Your task to perform on an android device: What's the latest video from GameSpot News? Image 0: 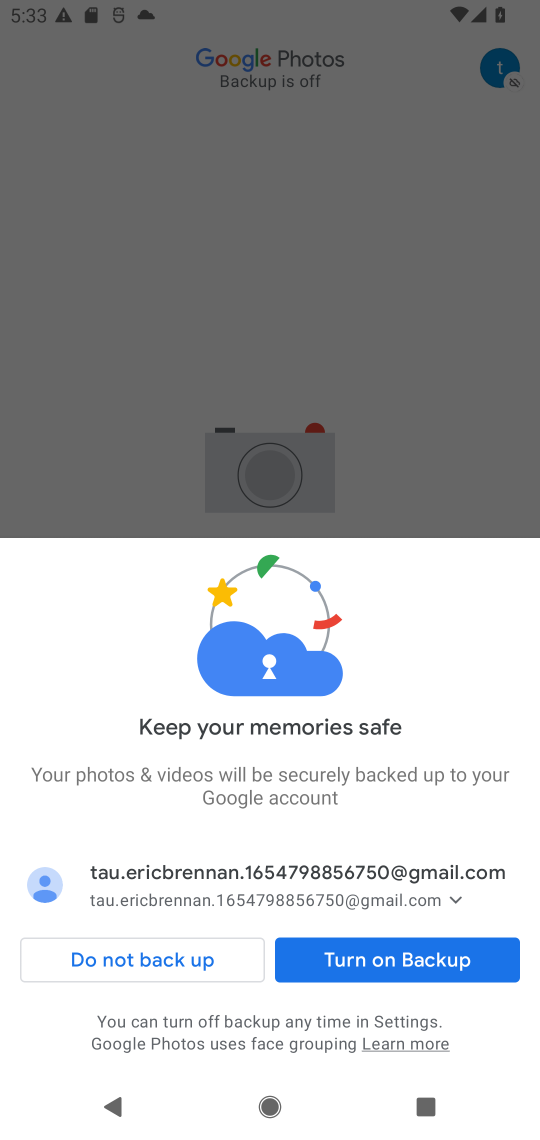
Step 0: press home button
Your task to perform on an android device: What's the latest video from GameSpot News? Image 1: 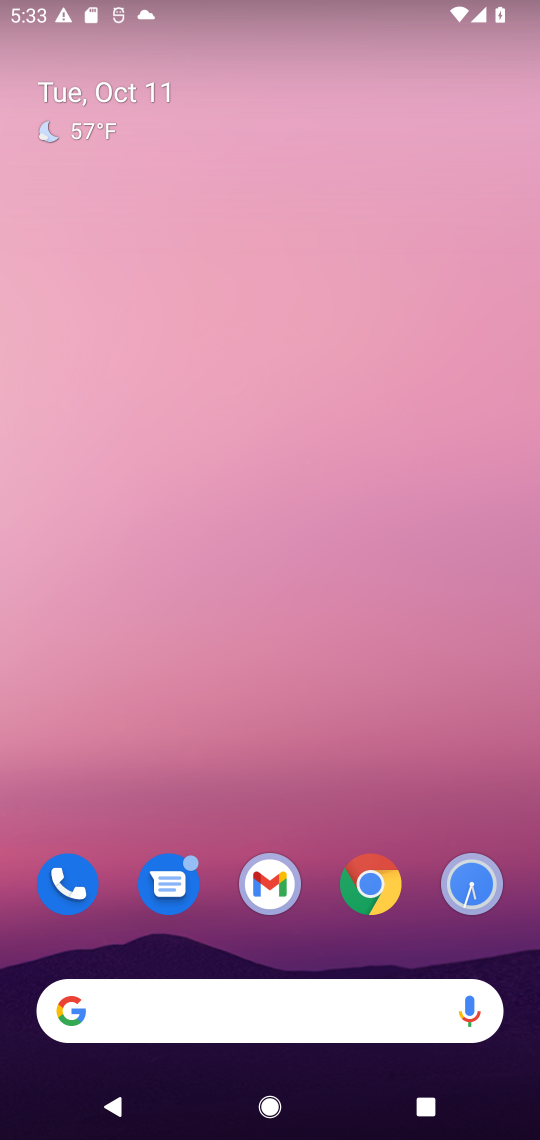
Step 1: drag from (324, 965) to (31, 53)
Your task to perform on an android device: What's the latest video from GameSpot News? Image 2: 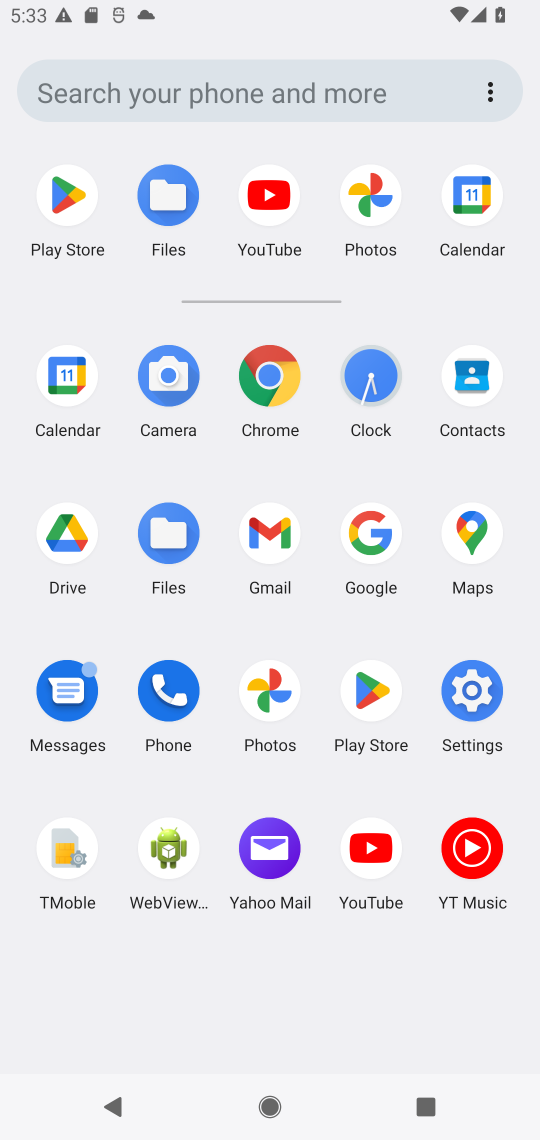
Step 2: click (272, 368)
Your task to perform on an android device: What's the latest video from GameSpot News? Image 3: 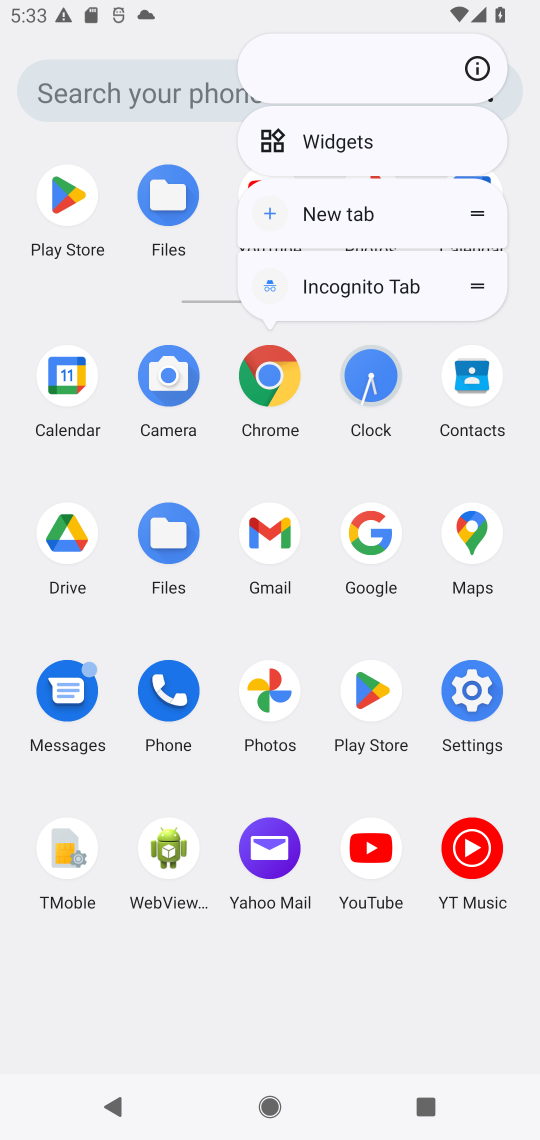
Step 3: click (261, 381)
Your task to perform on an android device: What's the latest video from GameSpot News? Image 4: 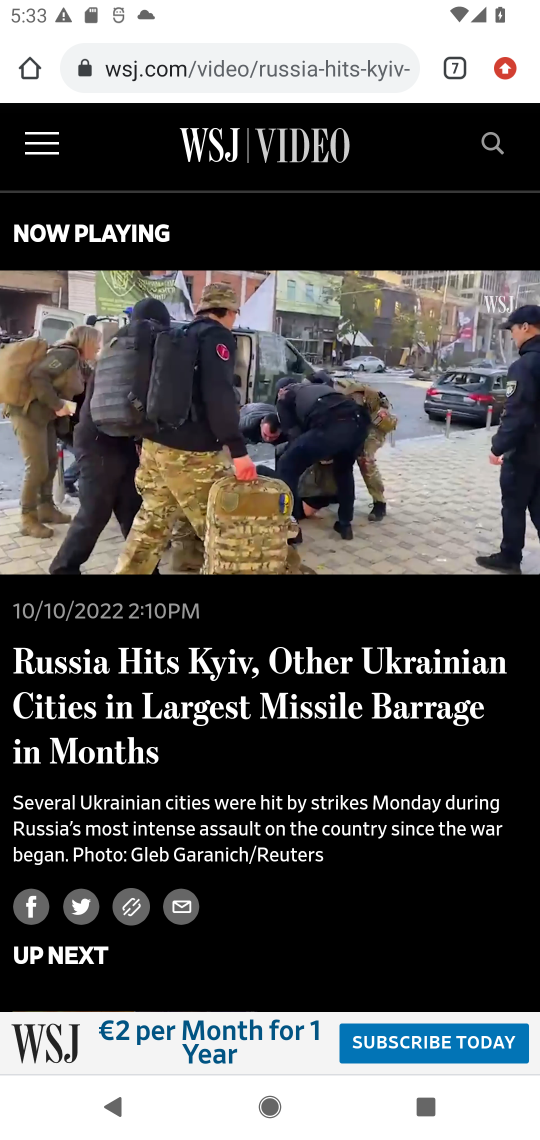
Step 4: drag from (501, 69) to (337, 99)
Your task to perform on an android device: What's the latest video from GameSpot News? Image 5: 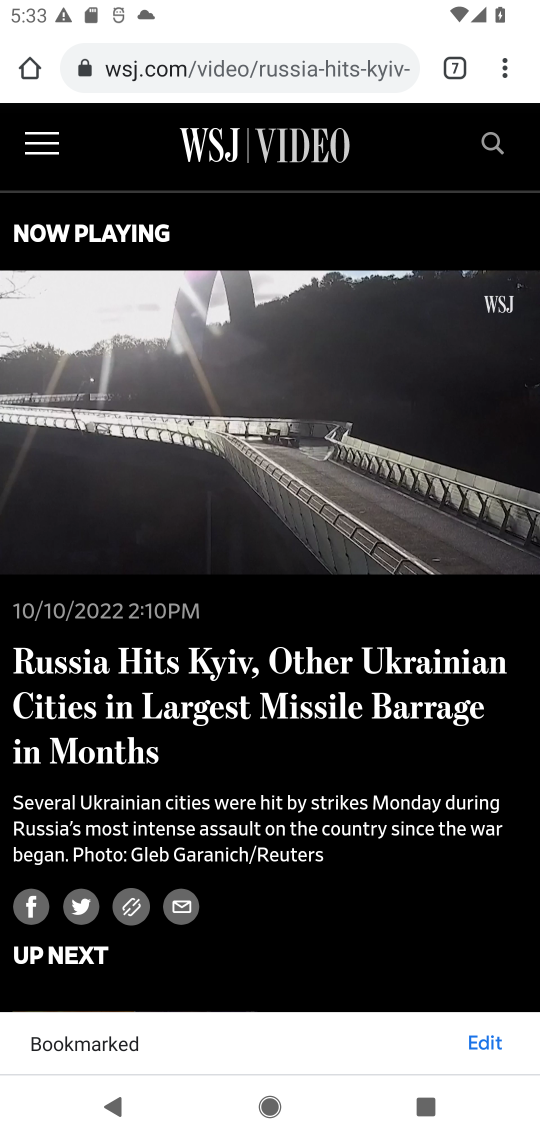
Step 5: drag from (507, 70) to (303, 228)
Your task to perform on an android device: What's the latest video from GameSpot News? Image 6: 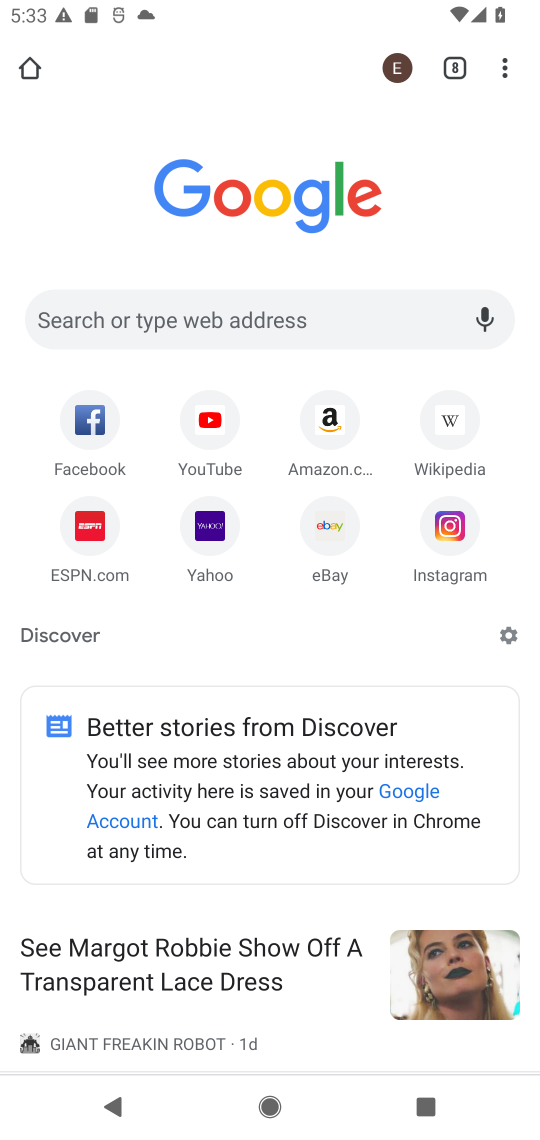
Step 6: click (320, 332)
Your task to perform on an android device: What's the latest video from GameSpot News? Image 7: 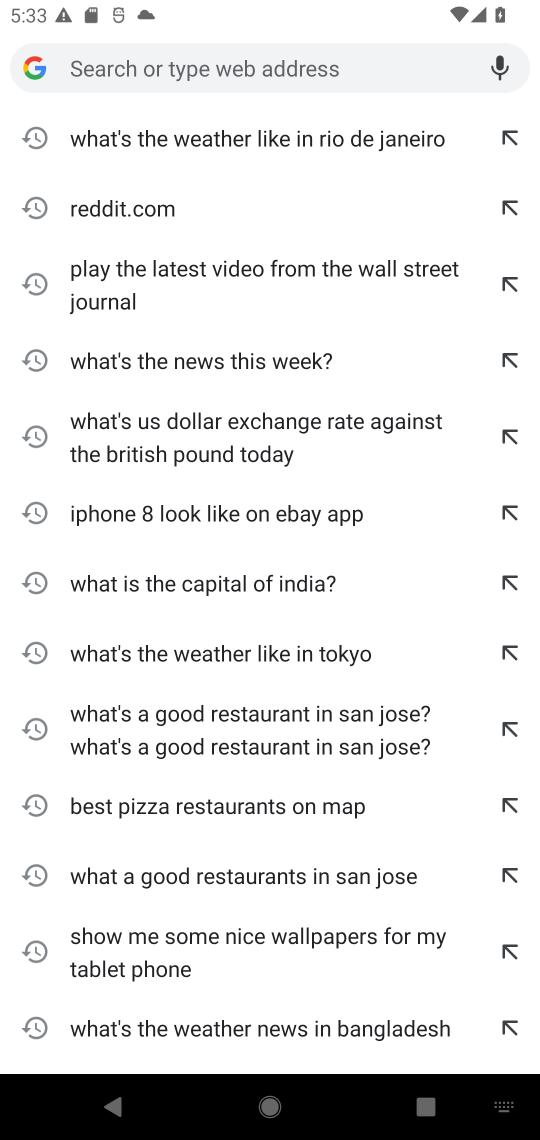
Step 7: type "What's the latest video from GameSpot News?"
Your task to perform on an android device: What's the latest video from GameSpot News? Image 8: 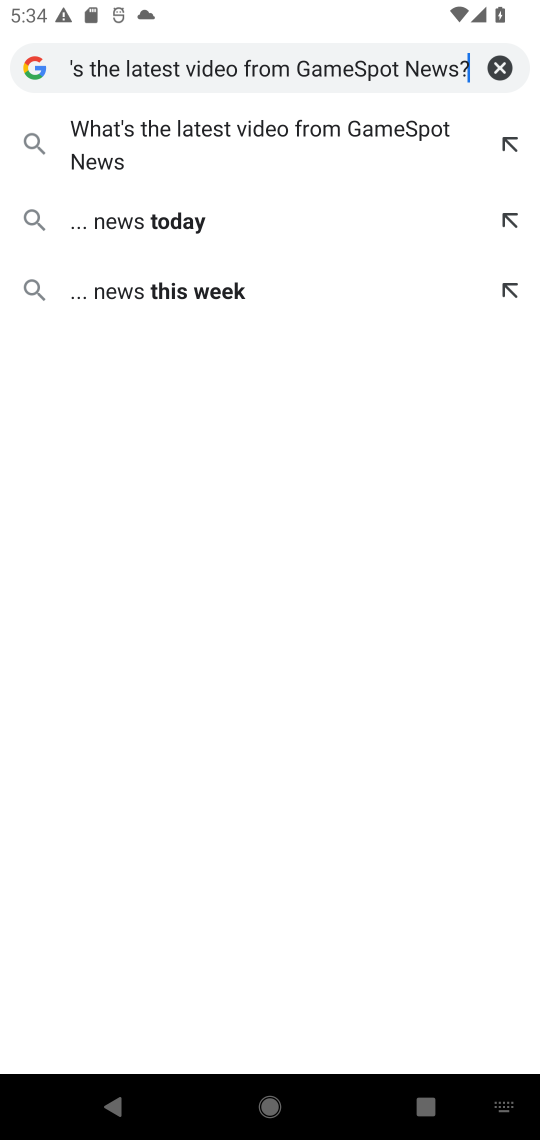
Step 8: type ""
Your task to perform on an android device: What's the latest video from GameSpot News? Image 9: 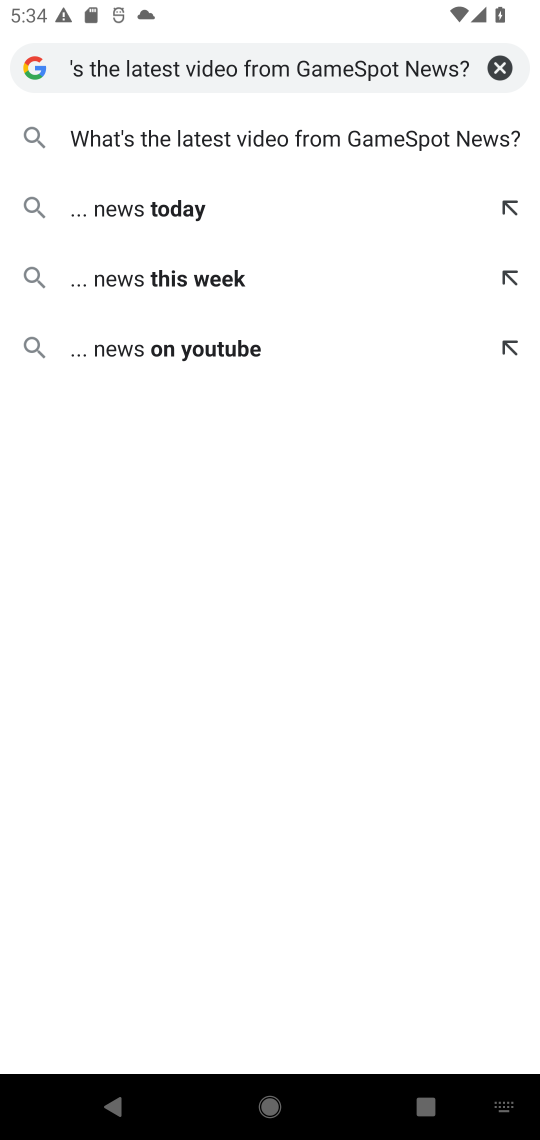
Step 9: click (289, 145)
Your task to perform on an android device: What's the latest video from GameSpot News? Image 10: 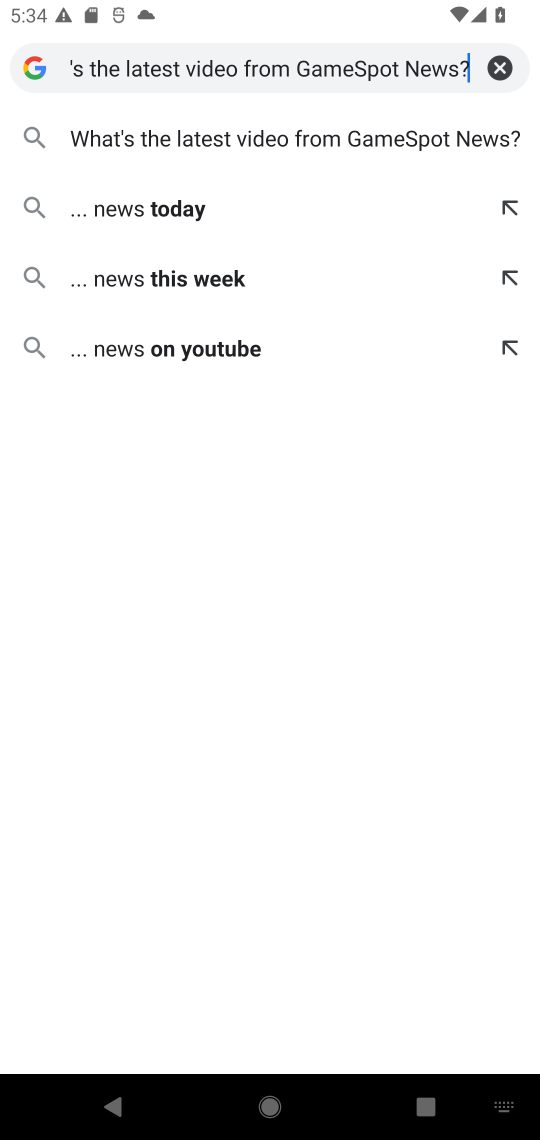
Step 10: click (246, 134)
Your task to perform on an android device: What's the latest video from GameSpot News? Image 11: 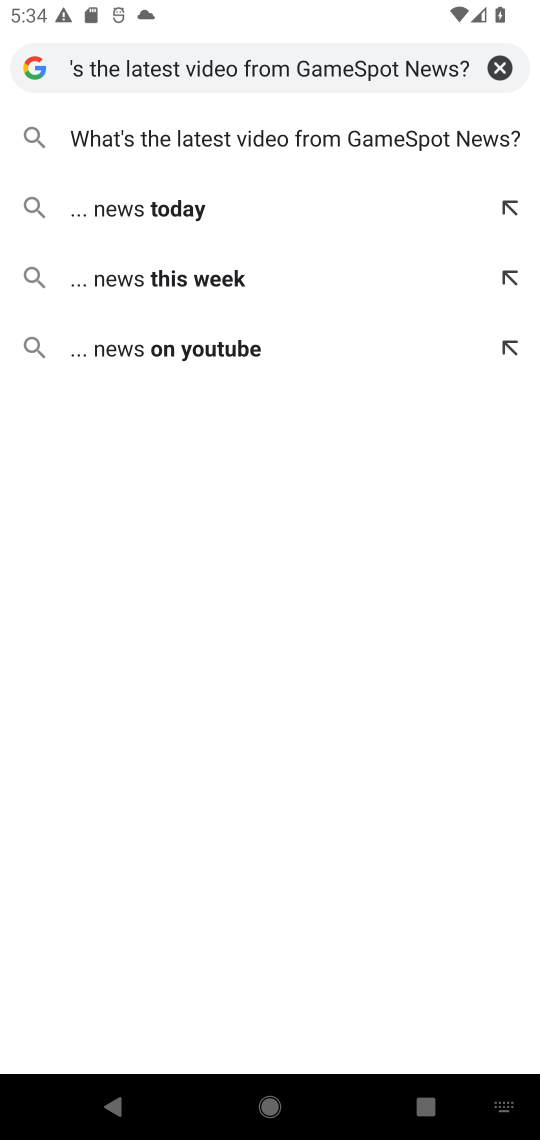
Step 11: click (391, 133)
Your task to perform on an android device: What's the latest video from GameSpot News? Image 12: 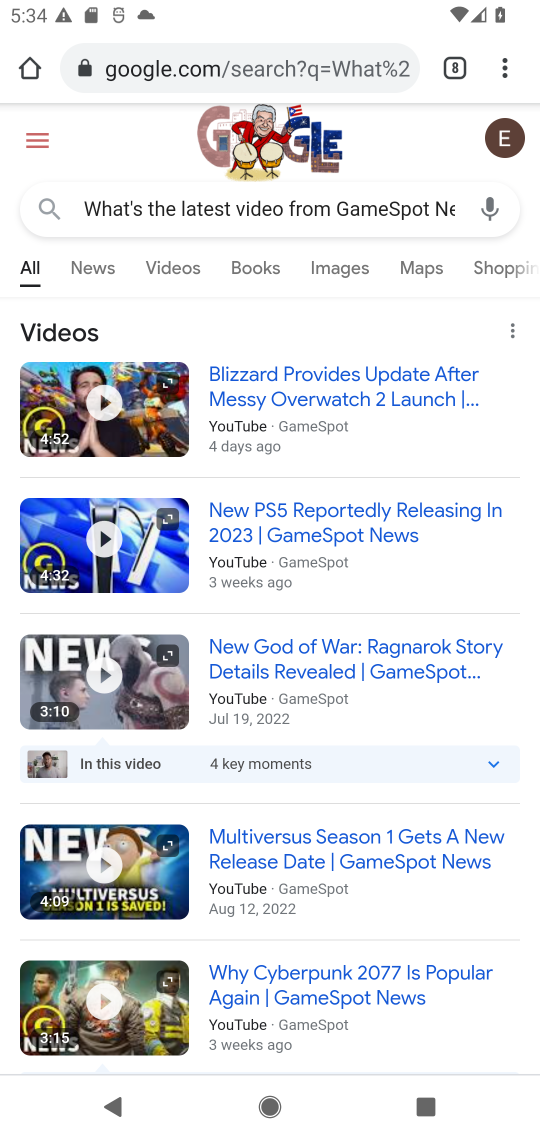
Step 12: click (264, 387)
Your task to perform on an android device: What's the latest video from GameSpot News? Image 13: 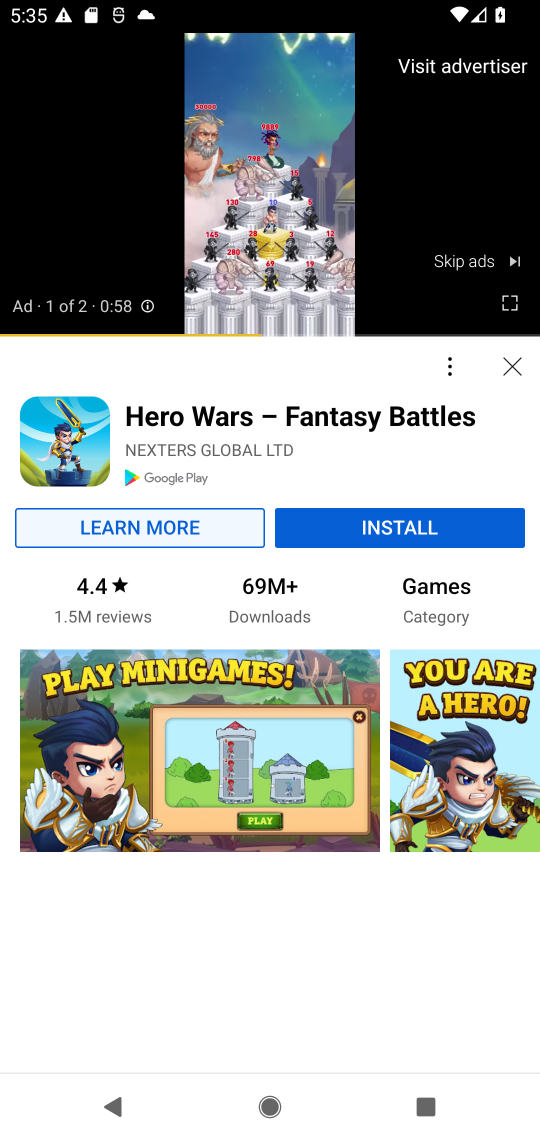
Step 13: click (473, 273)
Your task to perform on an android device: What's the latest video from GameSpot News? Image 14: 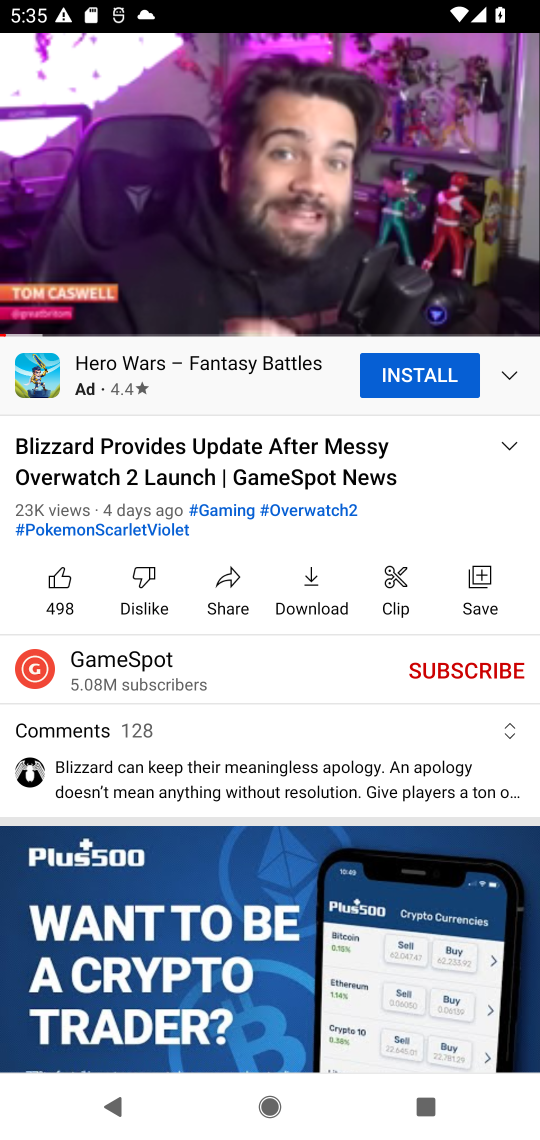
Step 14: task complete